Your task to perform on an android device: Open Google Maps and go to "Timeline" Image 0: 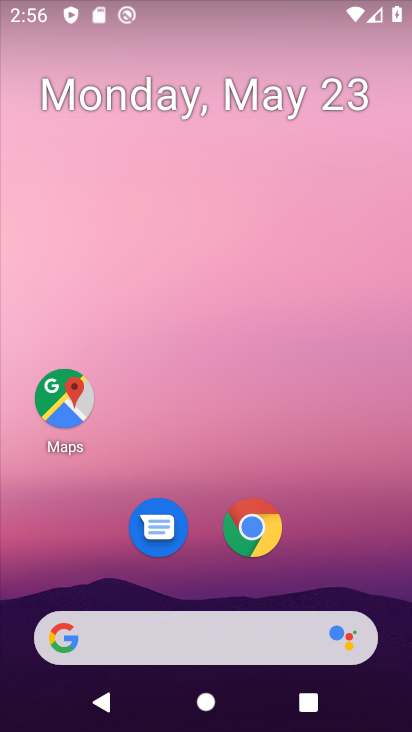
Step 0: drag from (288, 674) to (198, 96)
Your task to perform on an android device: Open Google Maps and go to "Timeline" Image 1: 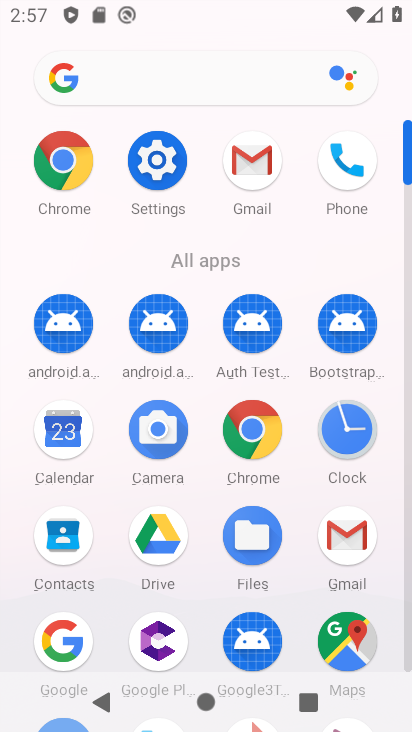
Step 1: click (328, 639)
Your task to perform on an android device: Open Google Maps and go to "Timeline" Image 2: 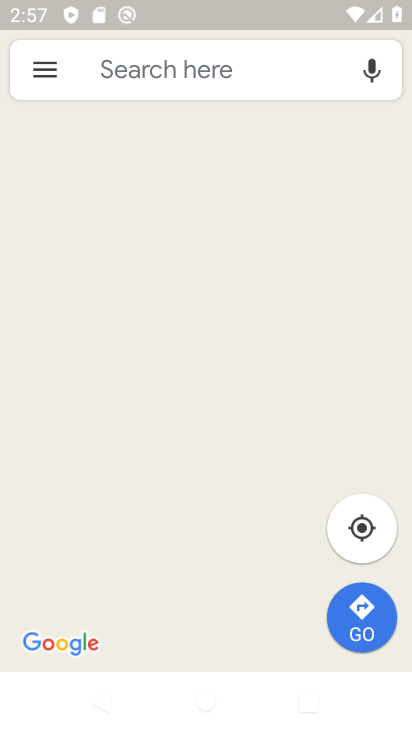
Step 2: click (45, 82)
Your task to perform on an android device: Open Google Maps and go to "Timeline" Image 3: 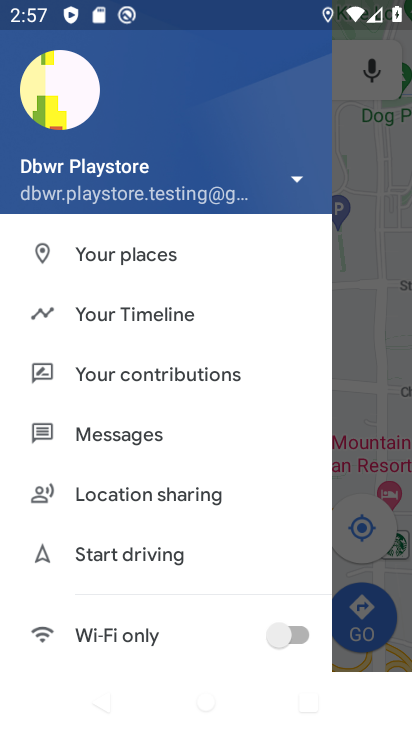
Step 3: click (95, 320)
Your task to perform on an android device: Open Google Maps and go to "Timeline" Image 4: 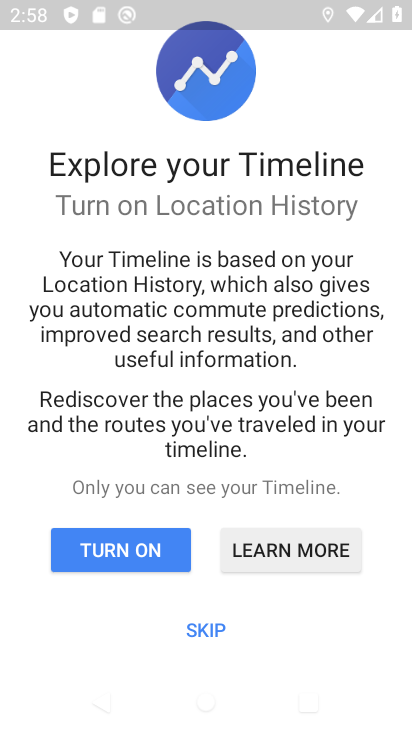
Step 4: click (193, 630)
Your task to perform on an android device: Open Google Maps and go to "Timeline" Image 5: 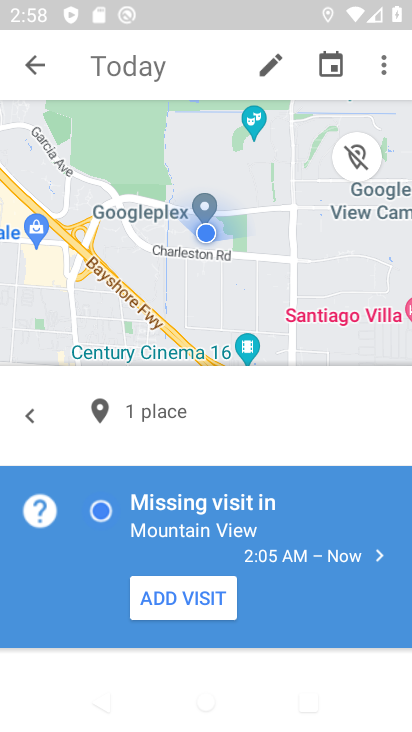
Step 5: task complete